Your task to perform on an android device: change the clock display to digital Image 0: 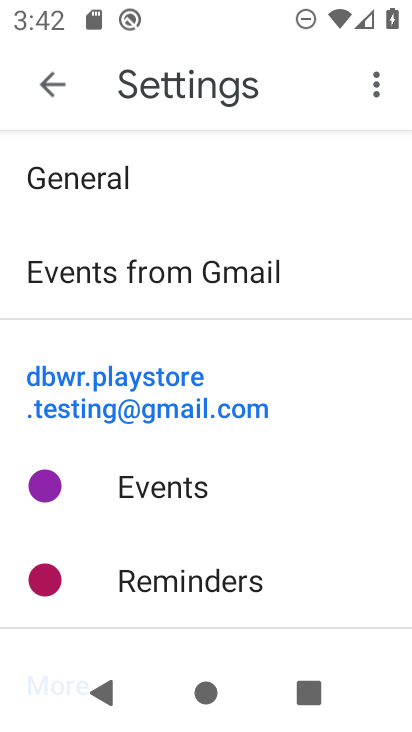
Step 0: press home button
Your task to perform on an android device: change the clock display to digital Image 1: 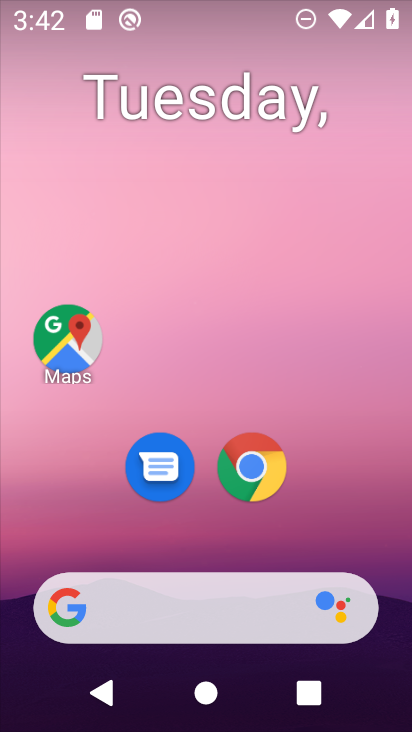
Step 1: drag from (225, 543) to (10, 227)
Your task to perform on an android device: change the clock display to digital Image 2: 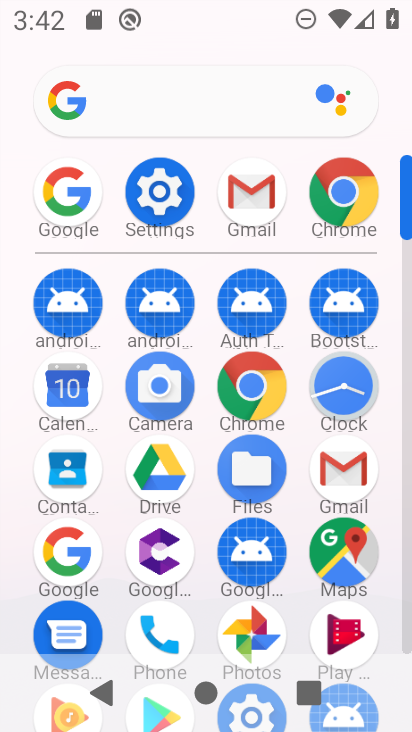
Step 2: click (346, 385)
Your task to perform on an android device: change the clock display to digital Image 3: 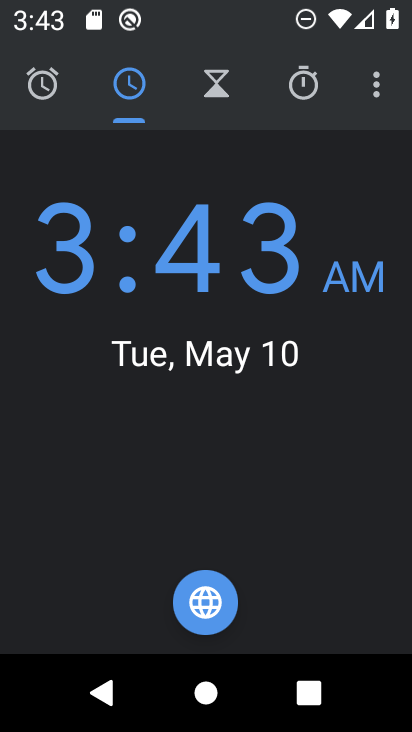
Step 3: click (374, 97)
Your task to perform on an android device: change the clock display to digital Image 4: 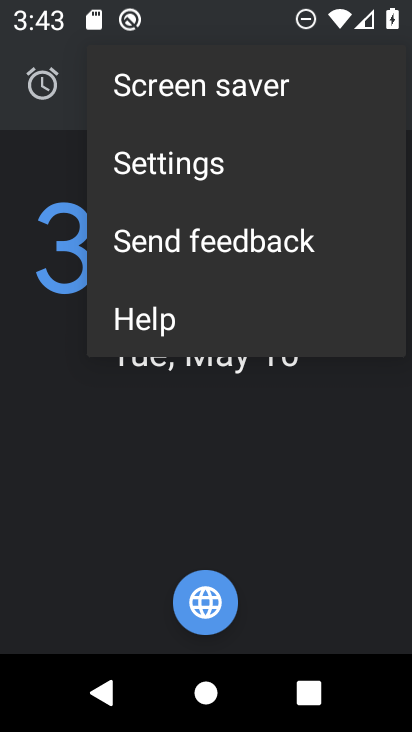
Step 4: click (220, 172)
Your task to perform on an android device: change the clock display to digital Image 5: 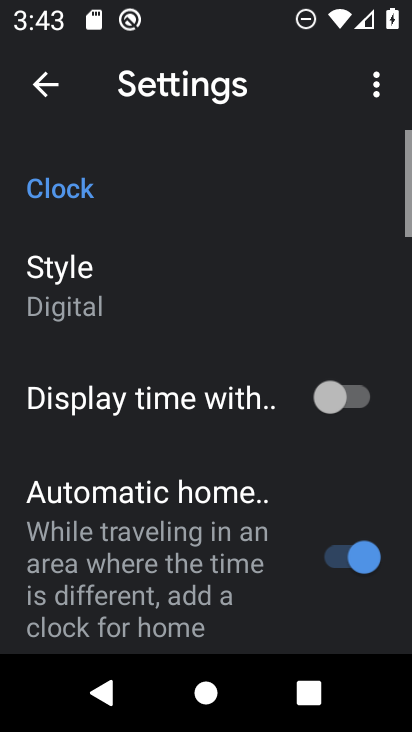
Step 5: click (94, 302)
Your task to perform on an android device: change the clock display to digital Image 6: 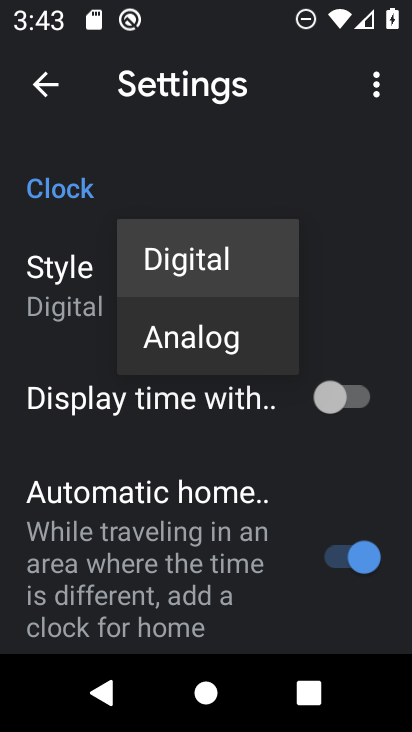
Step 6: click (146, 279)
Your task to perform on an android device: change the clock display to digital Image 7: 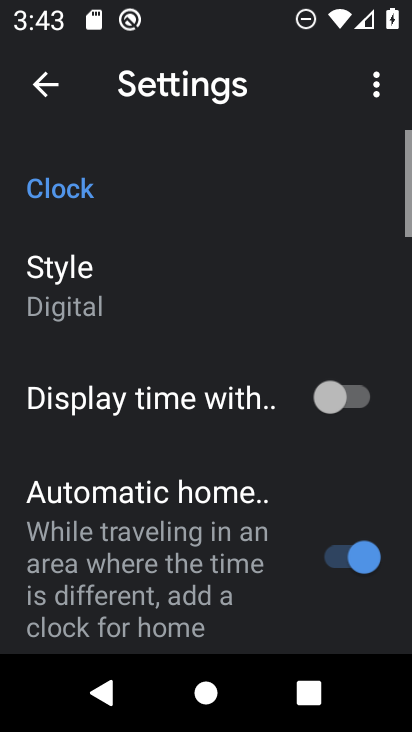
Step 7: task complete